Your task to perform on an android device: turn off priority inbox in the gmail app Image 0: 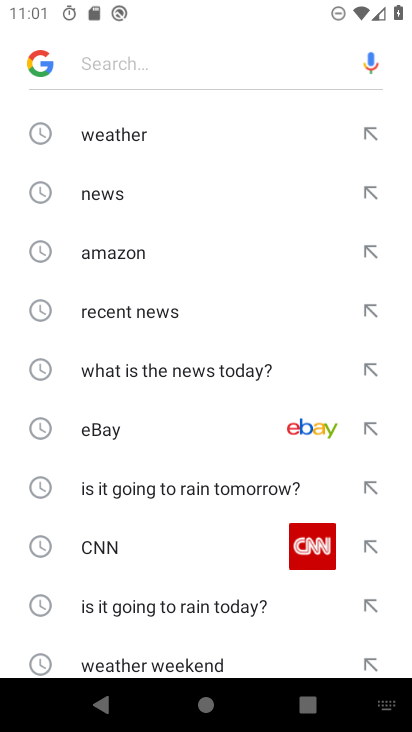
Step 0: press home button
Your task to perform on an android device: turn off priority inbox in the gmail app Image 1: 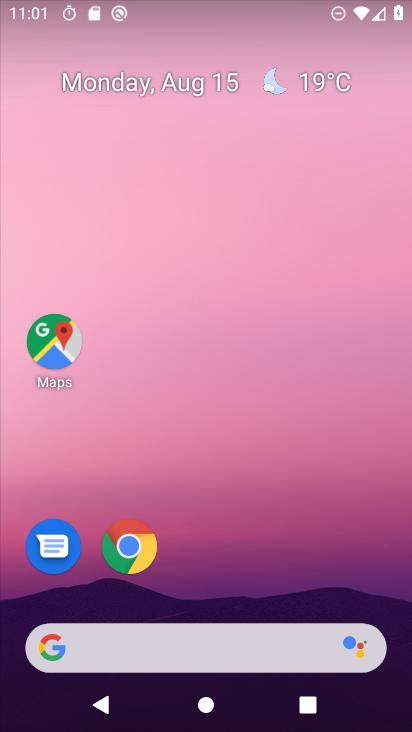
Step 1: drag from (221, 613) to (241, 99)
Your task to perform on an android device: turn off priority inbox in the gmail app Image 2: 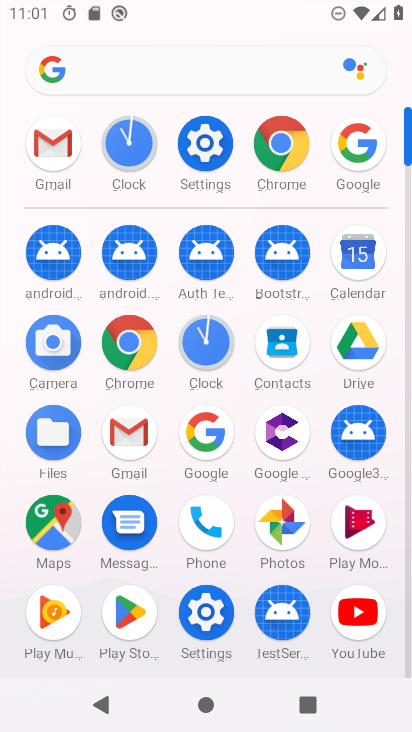
Step 2: click (134, 432)
Your task to perform on an android device: turn off priority inbox in the gmail app Image 3: 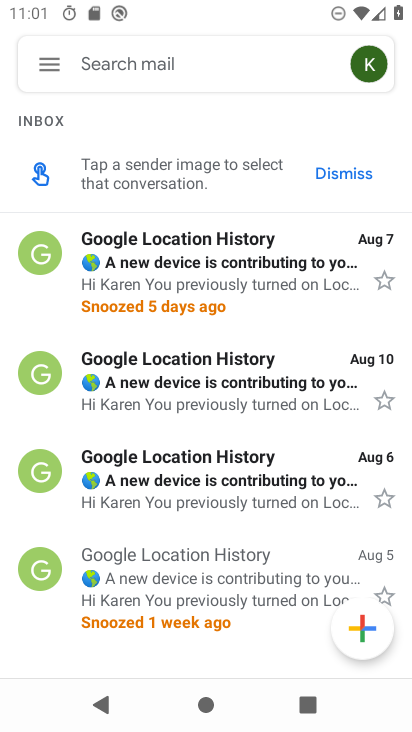
Step 3: click (52, 61)
Your task to perform on an android device: turn off priority inbox in the gmail app Image 4: 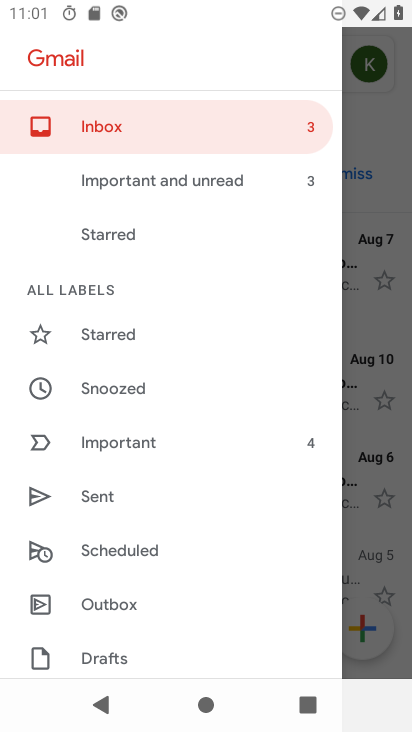
Step 4: drag from (130, 641) to (133, 206)
Your task to perform on an android device: turn off priority inbox in the gmail app Image 5: 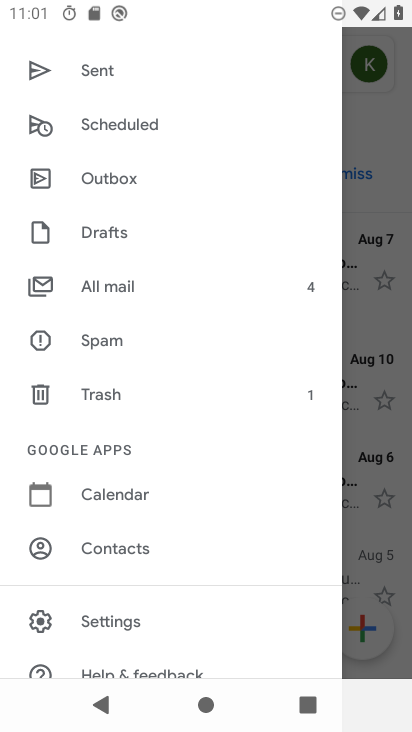
Step 5: click (118, 621)
Your task to perform on an android device: turn off priority inbox in the gmail app Image 6: 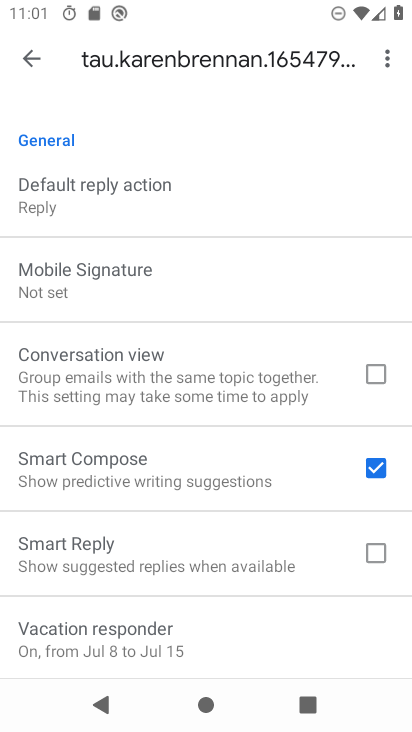
Step 6: drag from (117, 608) to (119, 310)
Your task to perform on an android device: turn off priority inbox in the gmail app Image 7: 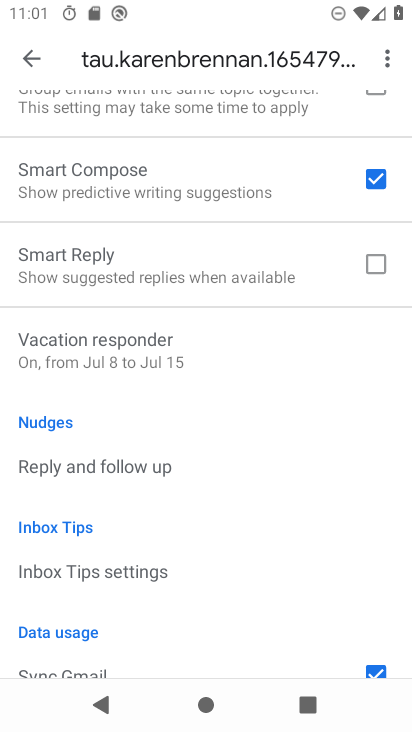
Step 7: drag from (152, 147) to (182, 621)
Your task to perform on an android device: turn off priority inbox in the gmail app Image 8: 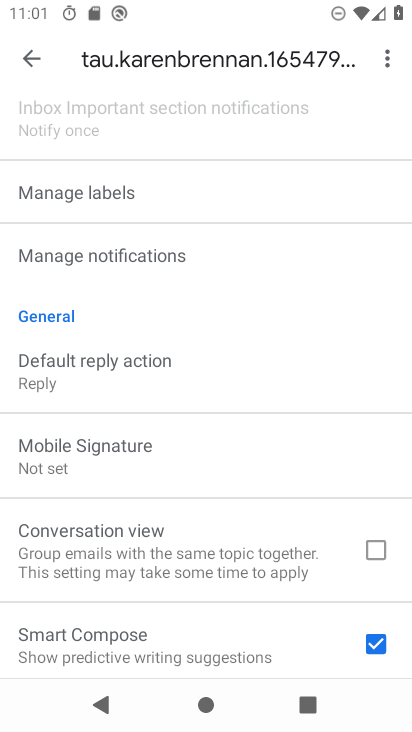
Step 8: drag from (173, 150) to (161, 612)
Your task to perform on an android device: turn off priority inbox in the gmail app Image 9: 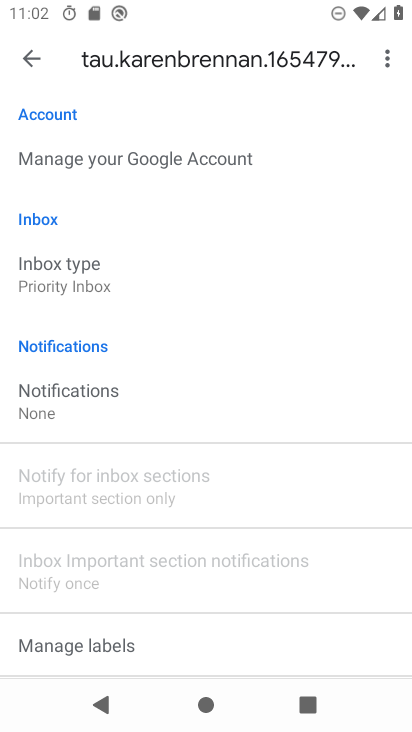
Step 9: click (52, 273)
Your task to perform on an android device: turn off priority inbox in the gmail app Image 10: 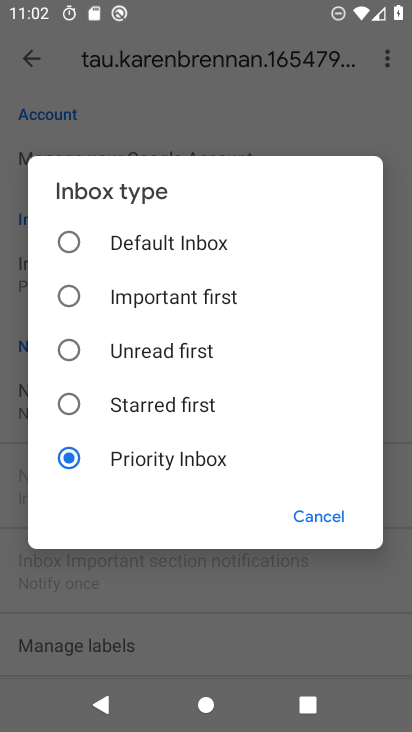
Step 10: click (63, 236)
Your task to perform on an android device: turn off priority inbox in the gmail app Image 11: 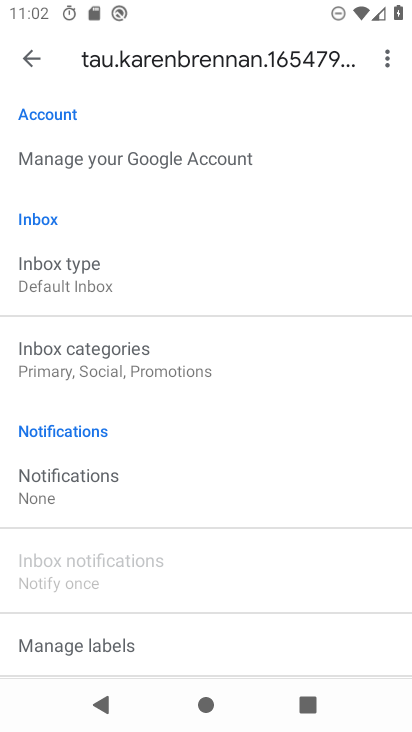
Step 11: task complete